Your task to perform on an android device: What's on my calendar today? Image 0: 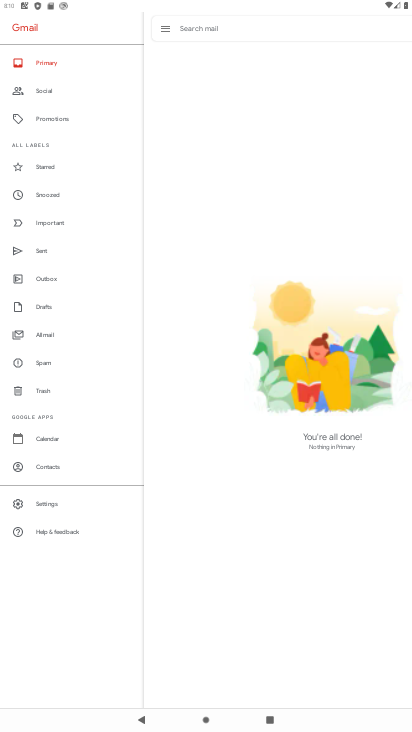
Step 0: press home button
Your task to perform on an android device: What's on my calendar today? Image 1: 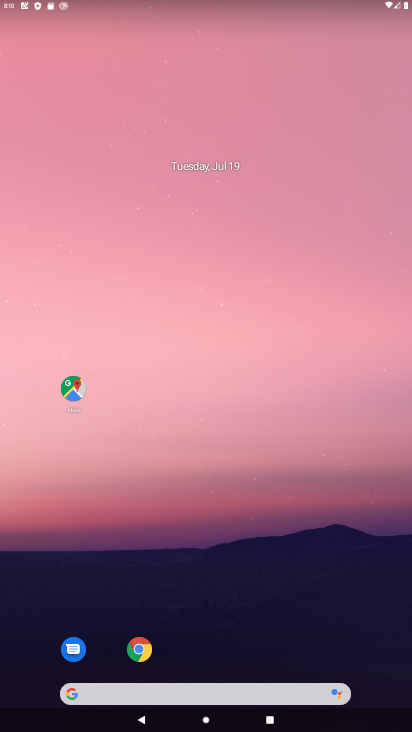
Step 1: drag from (214, 635) to (267, 6)
Your task to perform on an android device: What's on my calendar today? Image 2: 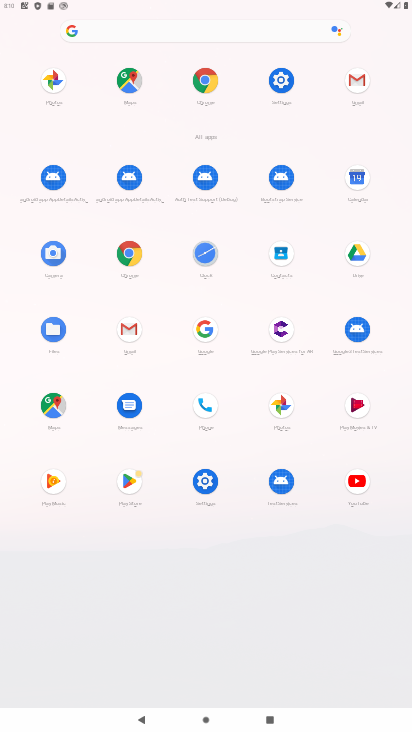
Step 2: click (355, 178)
Your task to perform on an android device: What's on my calendar today? Image 3: 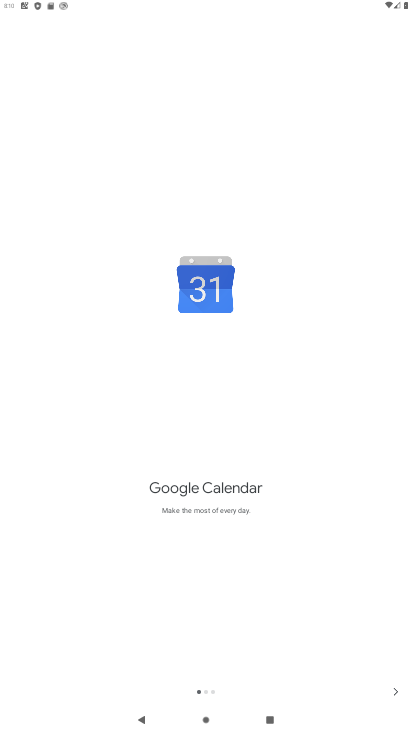
Step 3: click (395, 696)
Your task to perform on an android device: What's on my calendar today? Image 4: 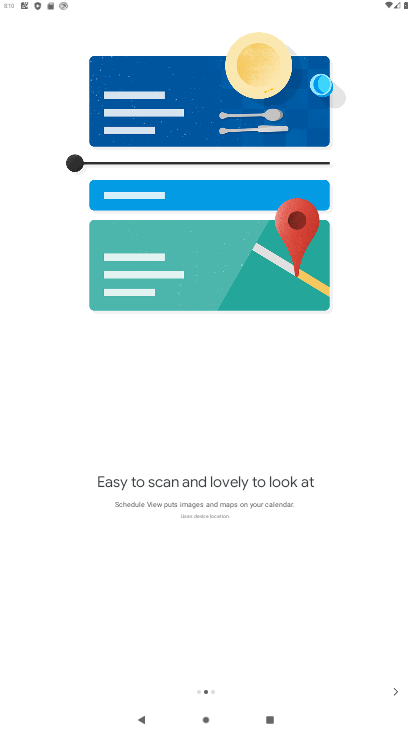
Step 4: click (395, 696)
Your task to perform on an android device: What's on my calendar today? Image 5: 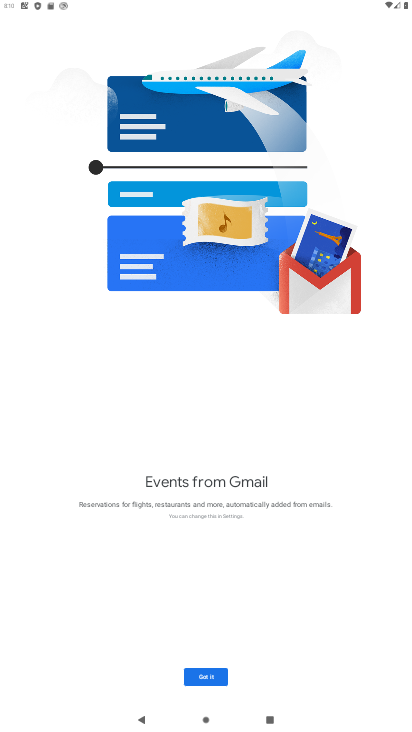
Step 5: click (205, 677)
Your task to perform on an android device: What's on my calendar today? Image 6: 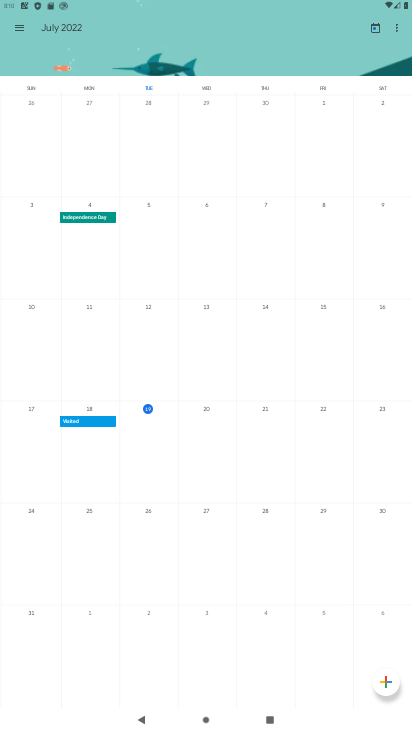
Step 6: click (149, 411)
Your task to perform on an android device: What's on my calendar today? Image 7: 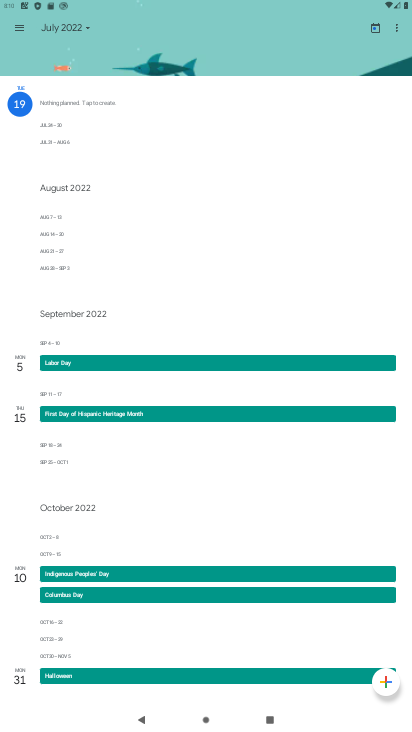
Step 7: click (18, 104)
Your task to perform on an android device: What's on my calendar today? Image 8: 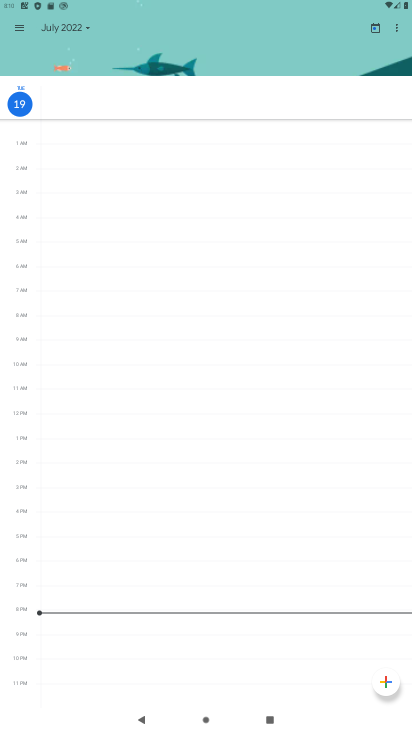
Step 8: task complete